Your task to perform on an android device: Go to accessibility settings Image 0: 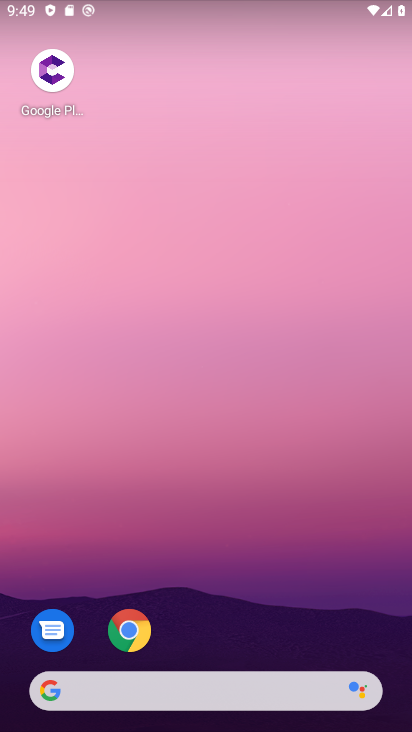
Step 0: drag from (365, 575) to (238, 10)
Your task to perform on an android device: Go to accessibility settings Image 1: 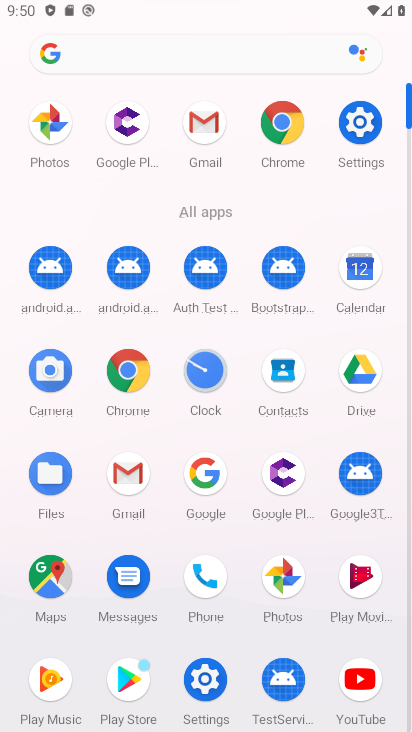
Step 1: click (360, 139)
Your task to perform on an android device: Go to accessibility settings Image 2: 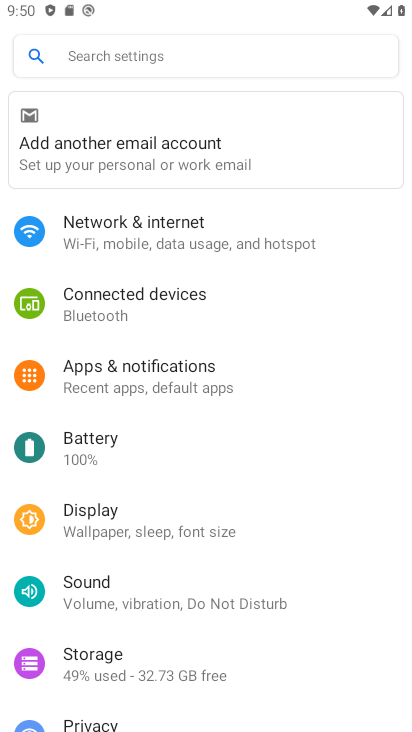
Step 2: drag from (209, 545) to (179, 169)
Your task to perform on an android device: Go to accessibility settings Image 3: 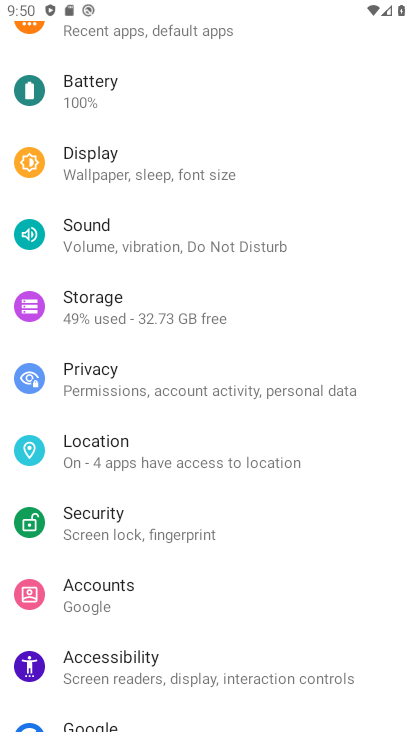
Step 3: click (102, 675)
Your task to perform on an android device: Go to accessibility settings Image 4: 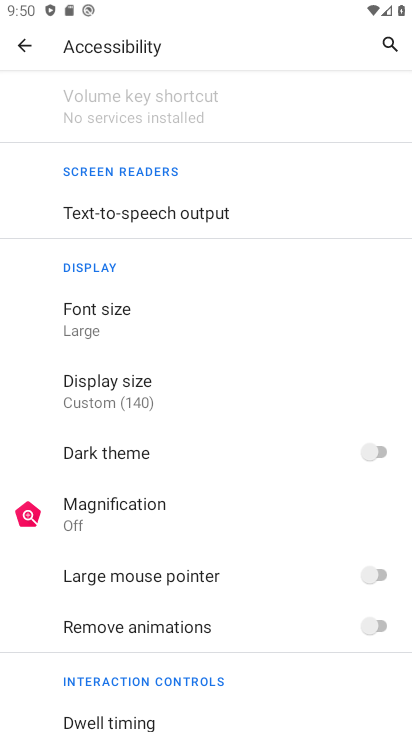
Step 4: task complete